Your task to perform on an android device: move an email to a new category in the gmail app Image 0: 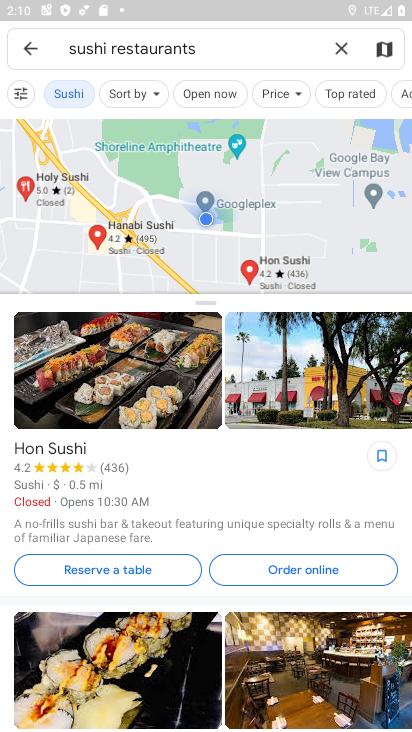
Step 0: press home button
Your task to perform on an android device: move an email to a new category in the gmail app Image 1: 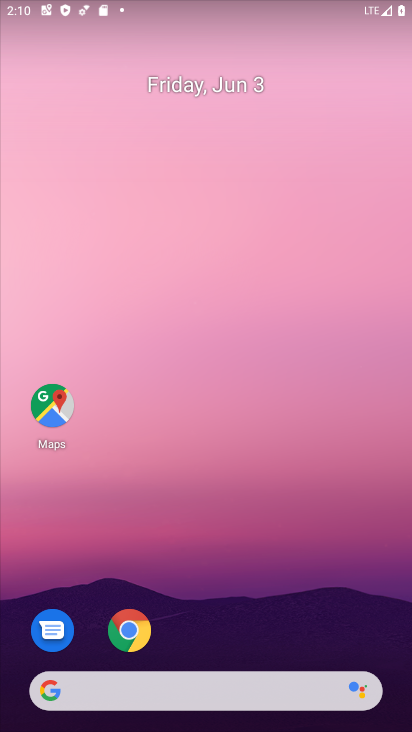
Step 1: drag from (252, 655) to (230, 24)
Your task to perform on an android device: move an email to a new category in the gmail app Image 2: 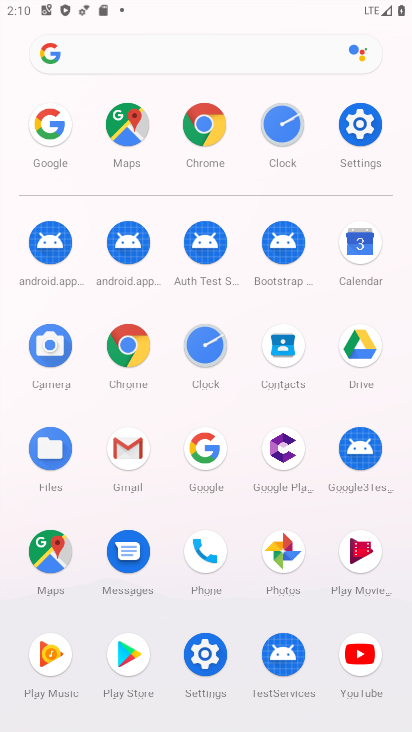
Step 2: click (145, 439)
Your task to perform on an android device: move an email to a new category in the gmail app Image 3: 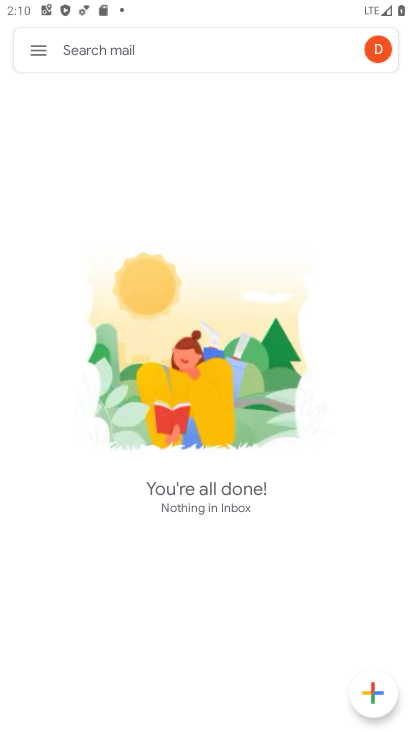
Step 3: task complete